Your task to perform on an android device: find which apps use the phone's location Image 0: 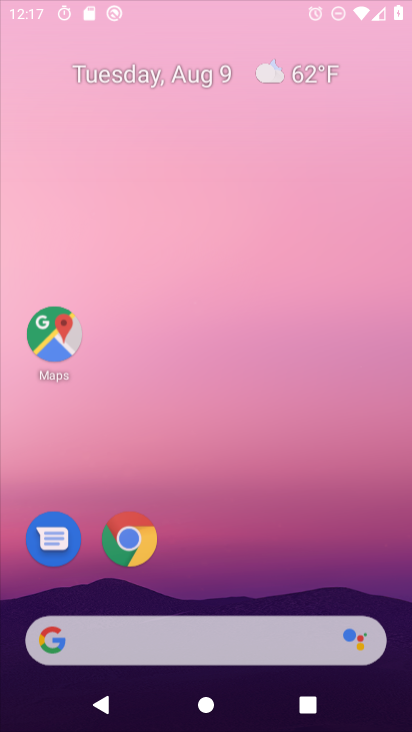
Step 0: press home button
Your task to perform on an android device: find which apps use the phone's location Image 1: 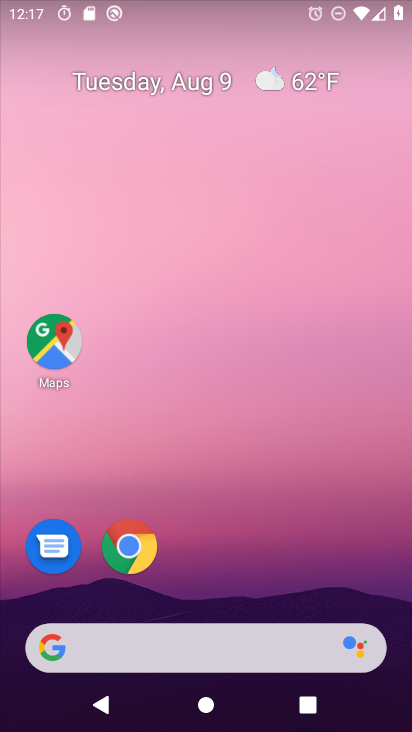
Step 1: drag from (220, 592) to (263, 1)
Your task to perform on an android device: find which apps use the phone's location Image 2: 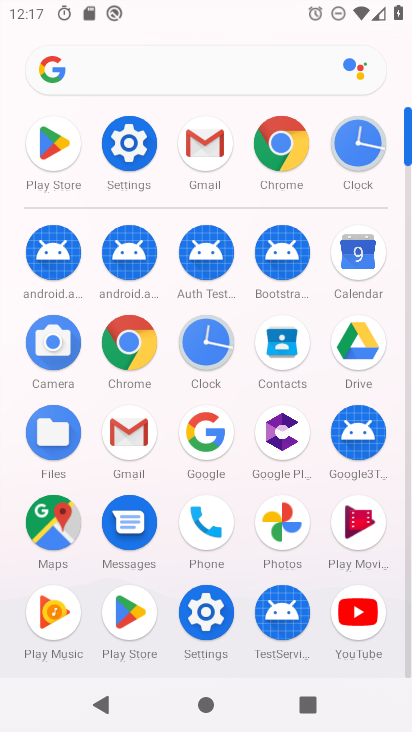
Step 2: click (126, 139)
Your task to perform on an android device: find which apps use the phone's location Image 3: 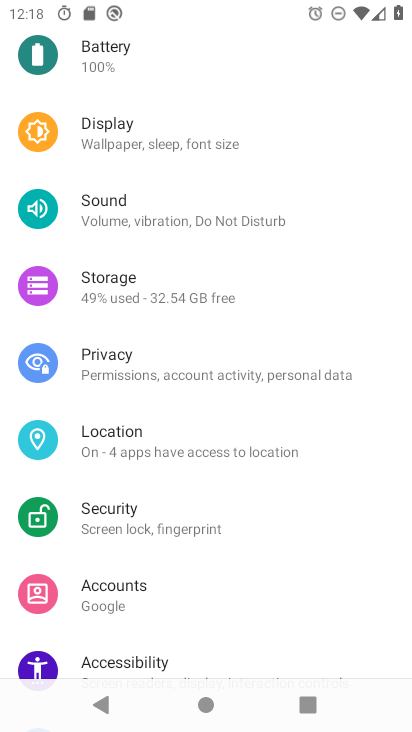
Step 3: click (190, 425)
Your task to perform on an android device: find which apps use the phone's location Image 4: 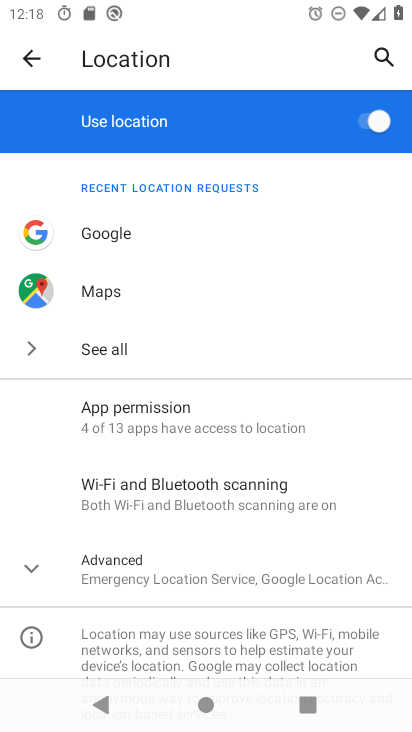
Step 4: click (66, 409)
Your task to perform on an android device: find which apps use the phone's location Image 5: 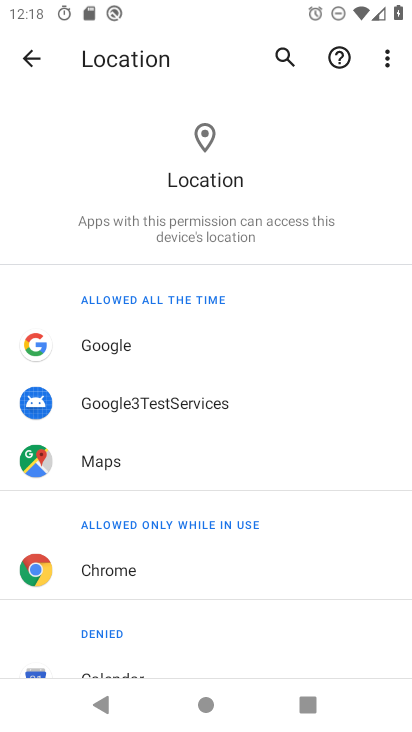
Step 5: task complete